Your task to perform on an android device: Find coffee shops on Maps Image 0: 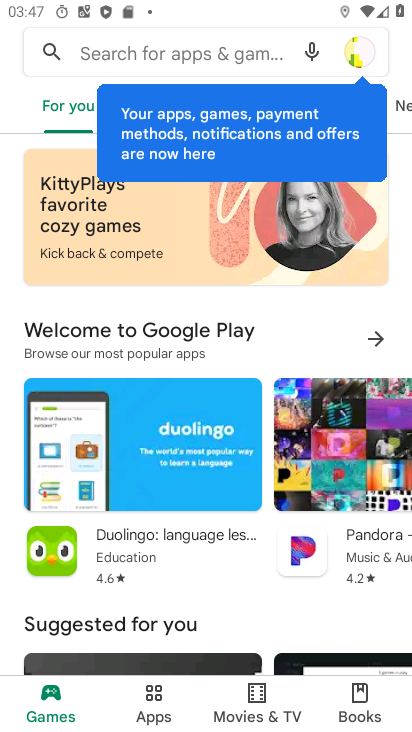
Step 0: press home button
Your task to perform on an android device: Find coffee shops on Maps Image 1: 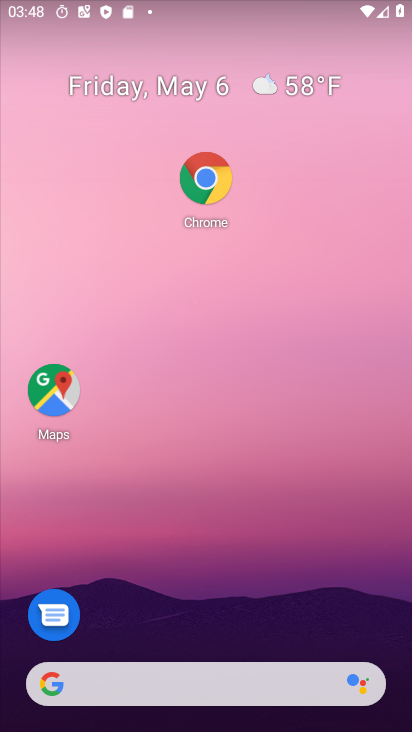
Step 1: click (59, 390)
Your task to perform on an android device: Find coffee shops on Maps Image 2: 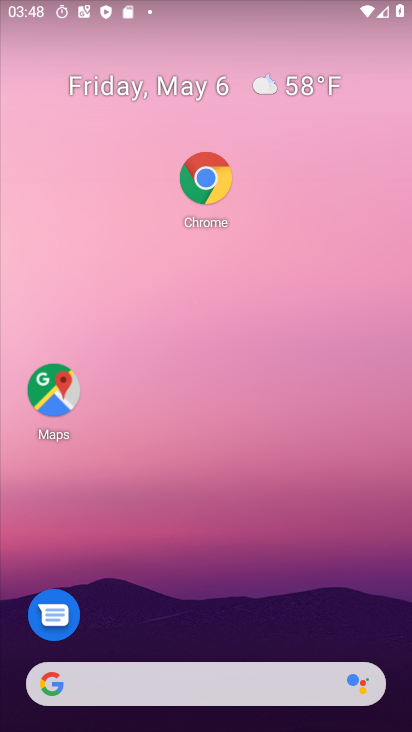
Step 2: click (59, 390)
Your task to perform on an android device: Find coffee shops on Maps Image 3: 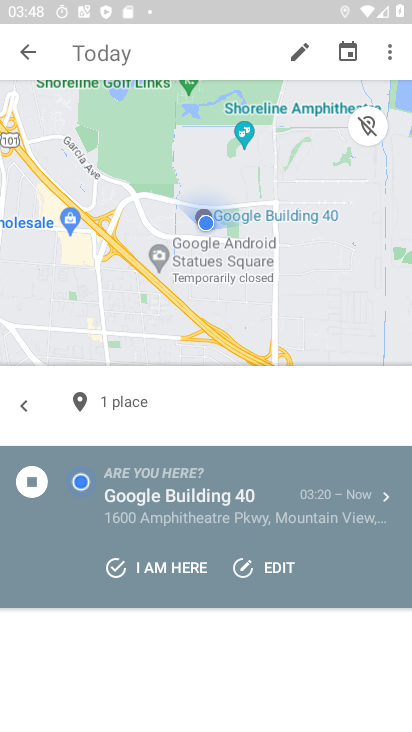
Step 3: click (82, 44)
Your task to perform on an android device: Find coffee shops on Maps Image 4: 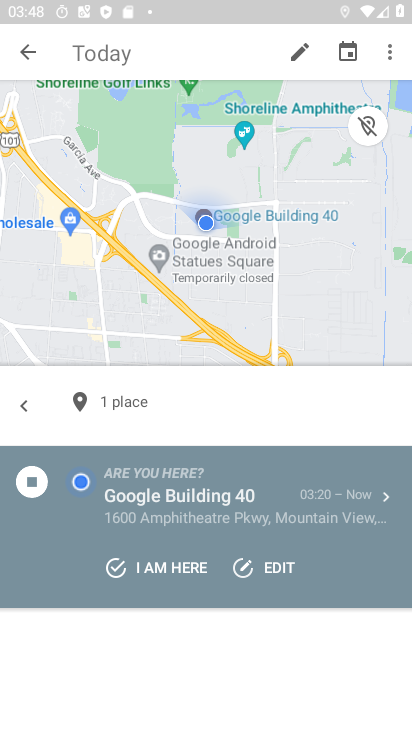
Step 4: click (82, 58)
Your task to perform on an android device: Find coffee shops on Maps Image 5: 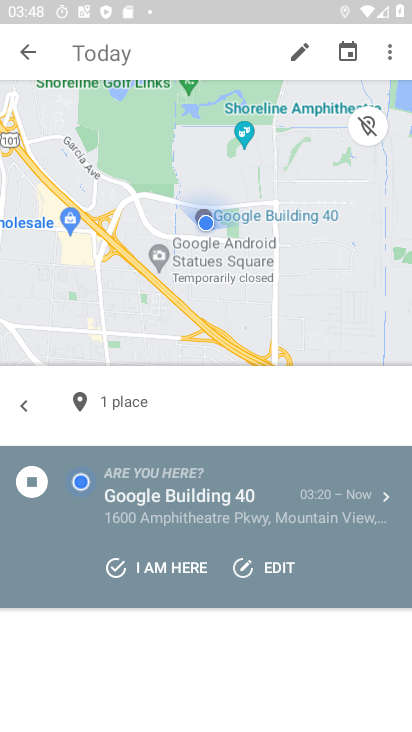
Step 5: click (82, 58)
Your task to perform on an android device: Find coffee shops on Maps Image 6: 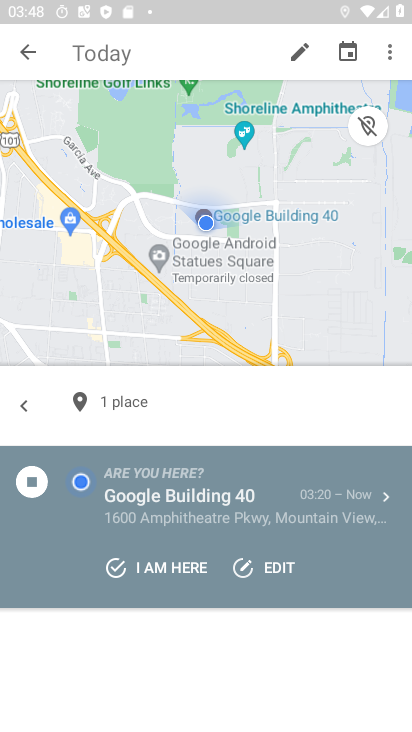
Step 6: click (103, 47)
Your task to perform on an android device: Find coffee shops on Maps Image 7: 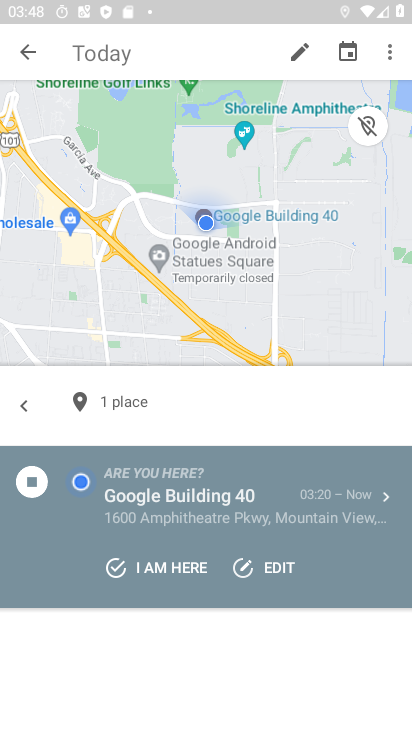
Step 7: click (89, 57)
Your task to perform on an android device: Find coffee shops on Maps Image 8: 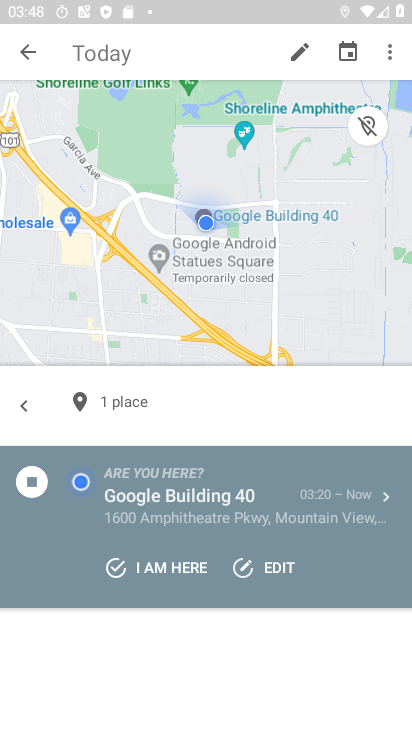
Step 8: click (89, 57)
Your task to perform on an android device: Find coffee shops on Maps Image 9: 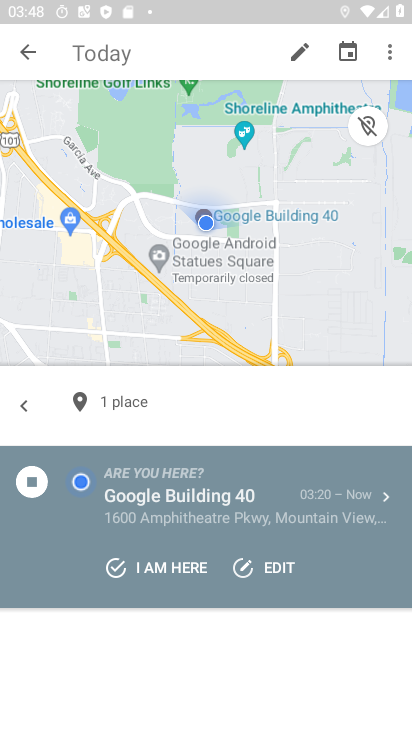
Step 9: click (89, 57)
Your task to perform on an android device: Find coffee shops on Maps Image 10: 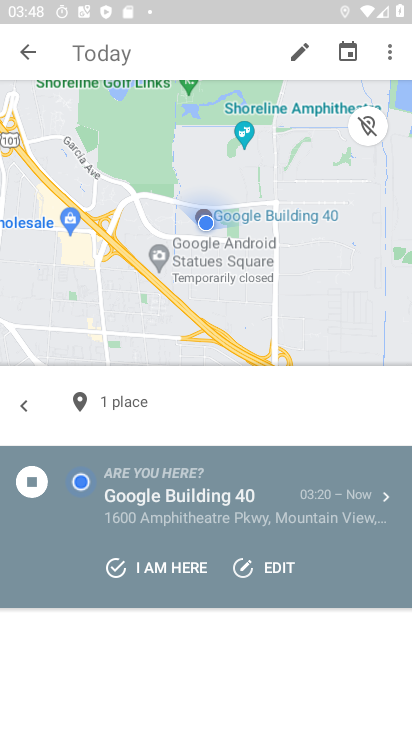
Step 10: click (92, 47)
Your task to perform on an android device: Find coffee shops on Maps Image 11: 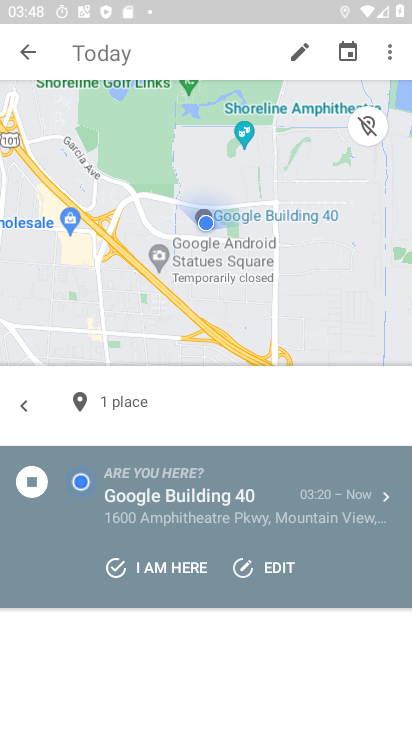
Step 11: click (92, 47)
Your task to perform on an android device: Find coffee shops on Maps Image 12: 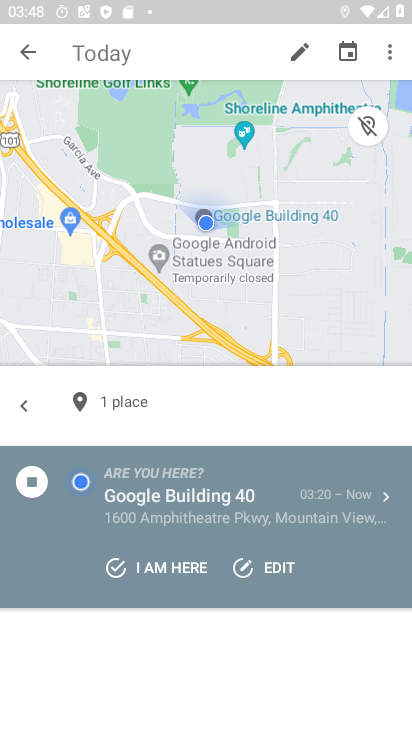
Step 12: click (92, 47)
Your task to perform on an android device: Find coffee shops on Maps Image 13: 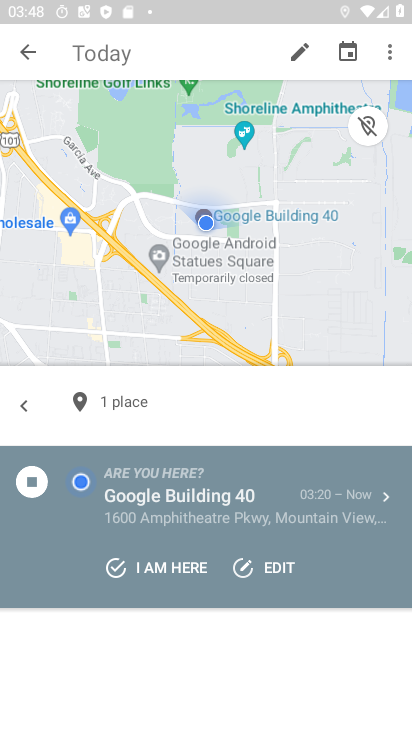
Step 13: click (92, 47)
Your task to perform on an android device: Find coffee shops on Maps Image 14: 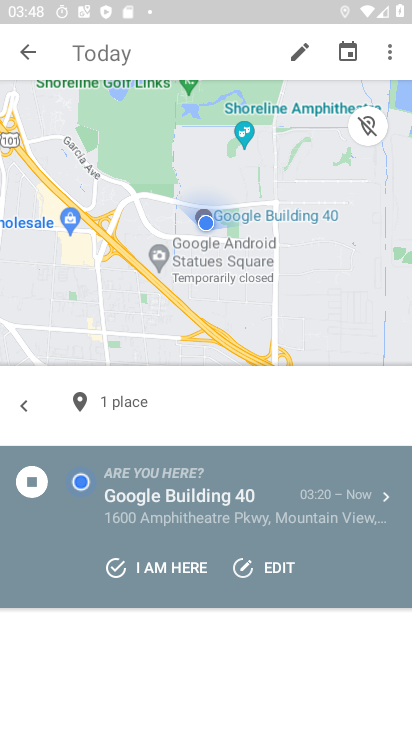
Step 14: click (92, 47)
Your task to perform on an android device: Find coffee shops on Maps Image 15: 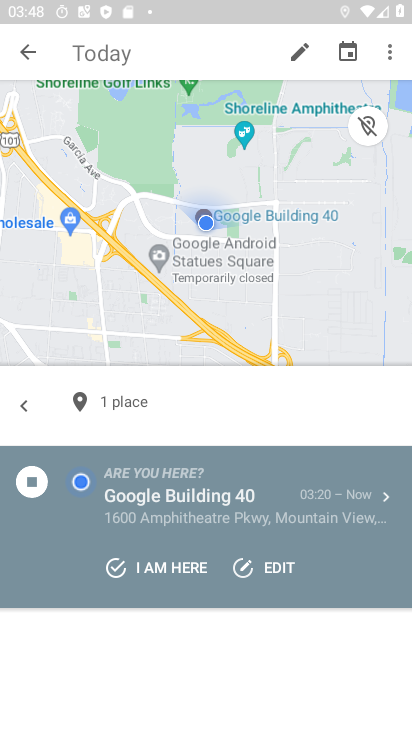
Step 15: click (92, 47)
Your task to perform on an android device: Find coffee shops on Maps Image 16: 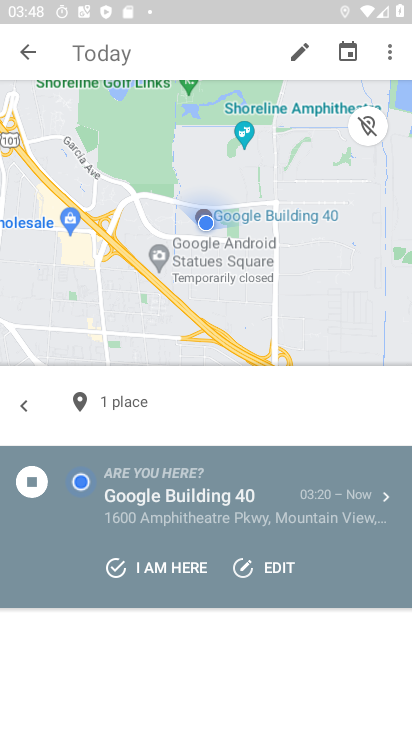
Step 16: click (20, 47)
Your task to perform on an android device: Find coffee shops on Maps Image 17: 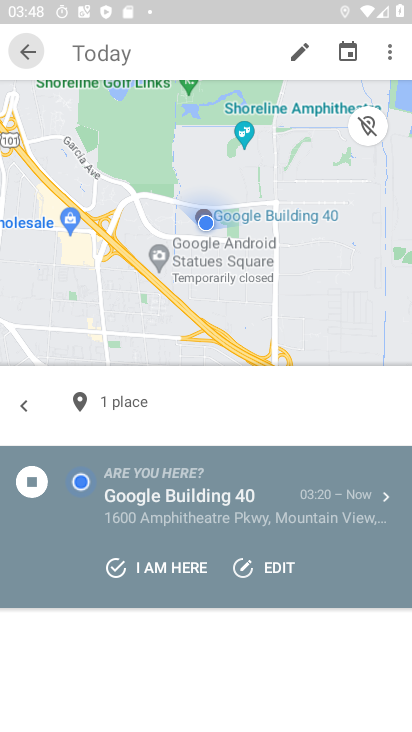
Step 17: click (54, 51)
Your task to perform on an android device: Find coffee shops on Maps Image 18: 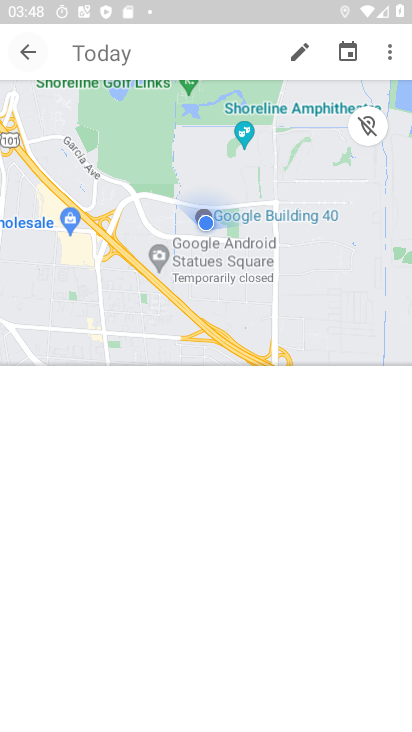
Step 18: click (76, 50)
Your task to perform on an android device: Find coffee shops on Maps Image 19: 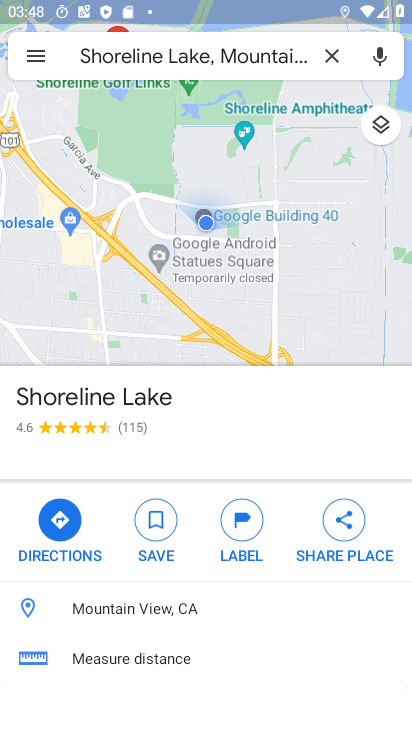
Step 19: click (103, 50)
Your task to perform on an android device: Find coffee shops on Maps Image 20: 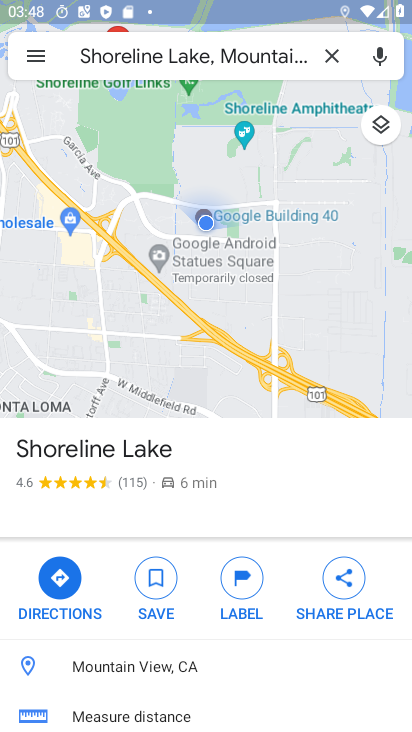
Step 20: click (103, 50)
Your task to perform on an android device: Find coffee shops on Maps Image 21: 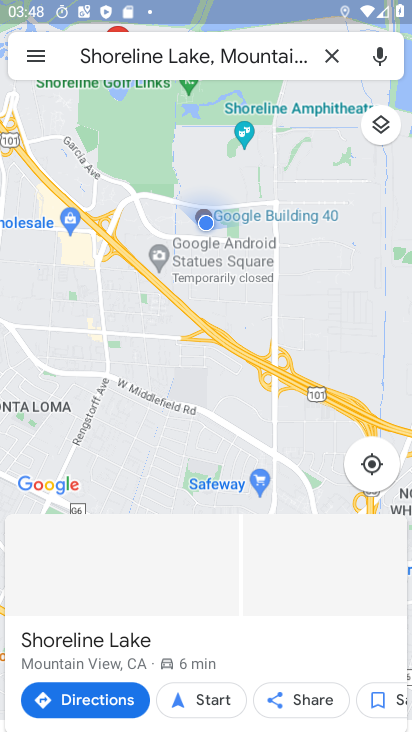
Step 21: click (103, 50)
Your task to perform on an android device: Find coffee shops on Maps Image 22: 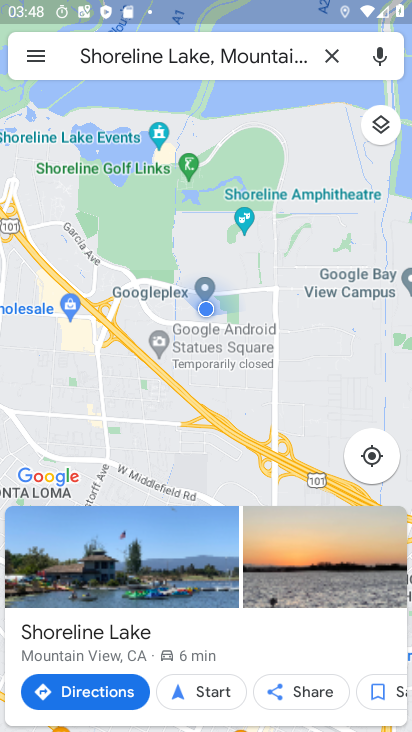
Step 22: click (331, 53)
Your task to perform on an android device: Find coffee shops on Maps Image 23: 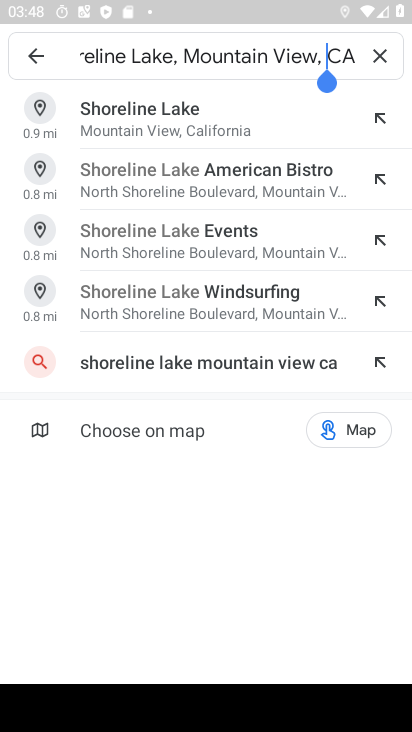
Step 23: click (379, 53)
Your task to perform on an android device: Find coffee shops on Maps Image 24: 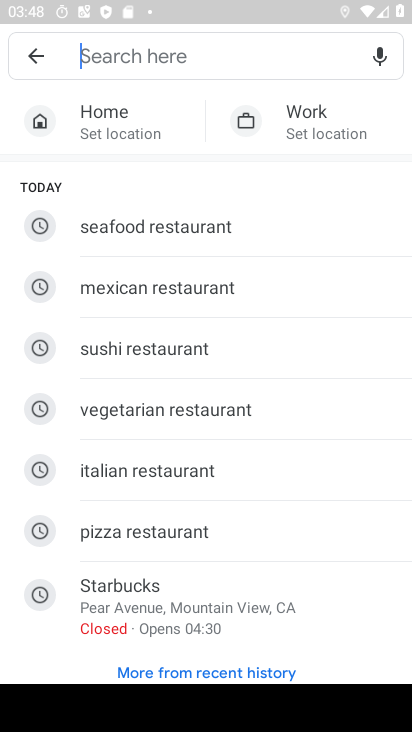
Step 24: type "coffee"
Your task to perform on an android device: Find coffee shops on Maps Image 25: 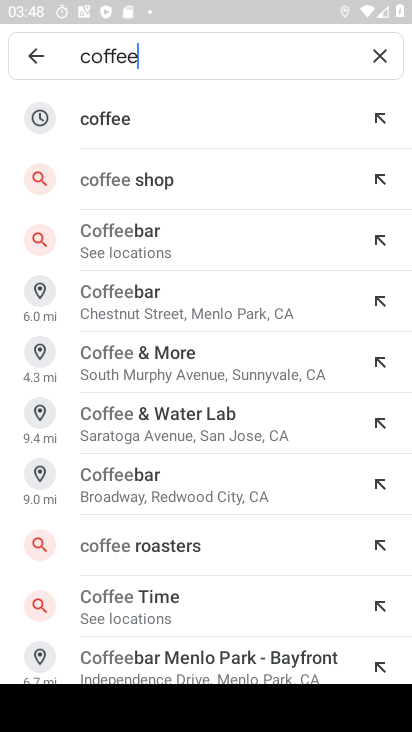
Step 25: click (109, 112)
Your task to perform on an android device: Find coffee shops on Maps Image 26: 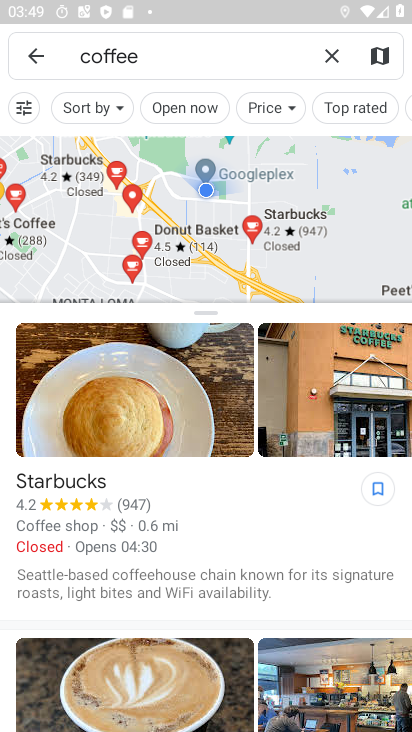
Step 26: click (149, 48)
Your task to perform on an android device: Find coffee shops on Maps Image 27: 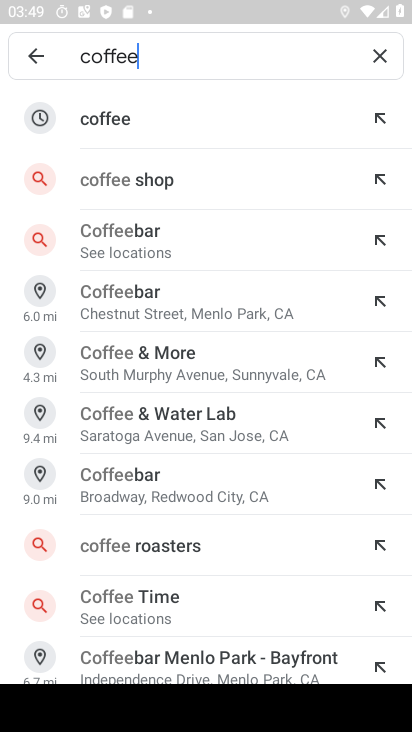
Step 27: click (157, 170)
Your task to perform on an android device: Find coffee shops on Maps Image 28: 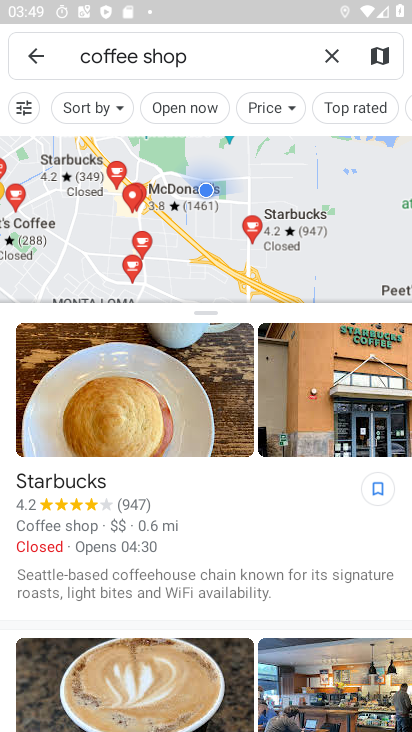
Step 28: task complete